Your task to perform on an android device: open app "LinkedIn" Image 0: 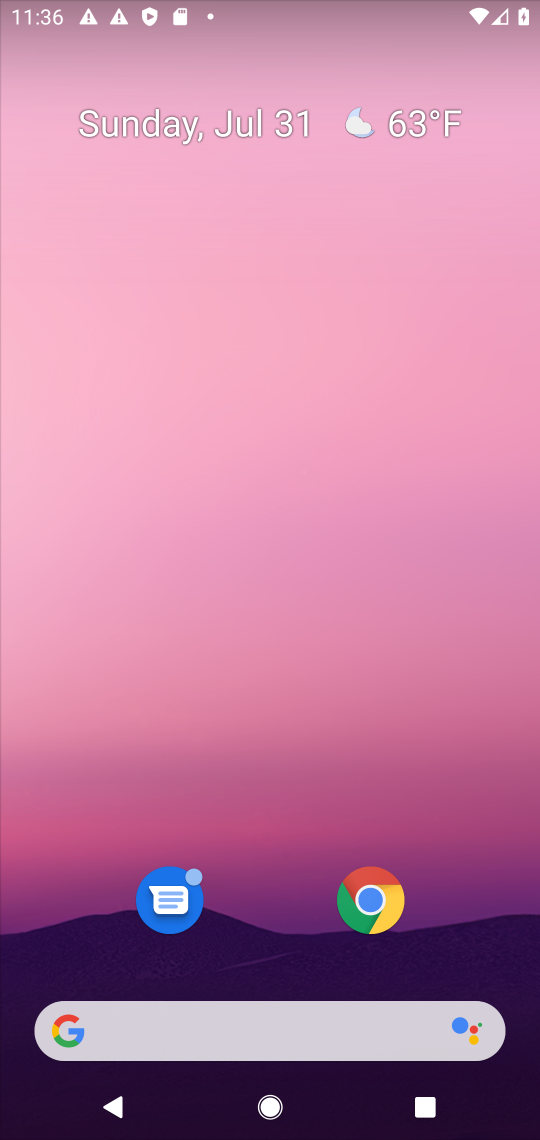
Step 0: drag from (235, 1084) to (69, 21)
Your task to perform on an android device: open app "LinkedIn" Image 1: 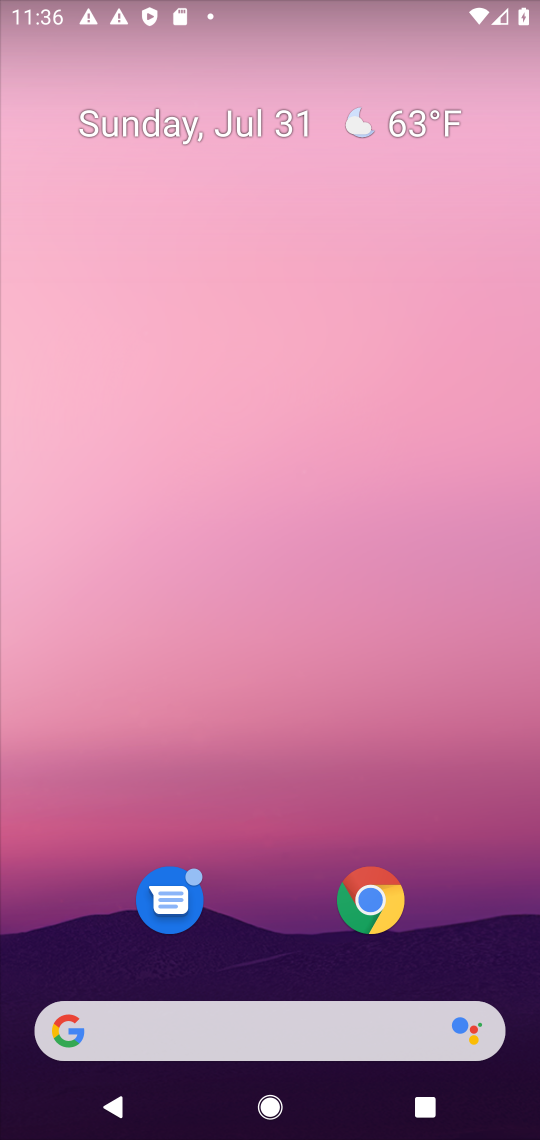
Step 1: drag from (209, 987) to (295, 9)
Your task to perform on an android device: open app "LinkedIn" Image 2: 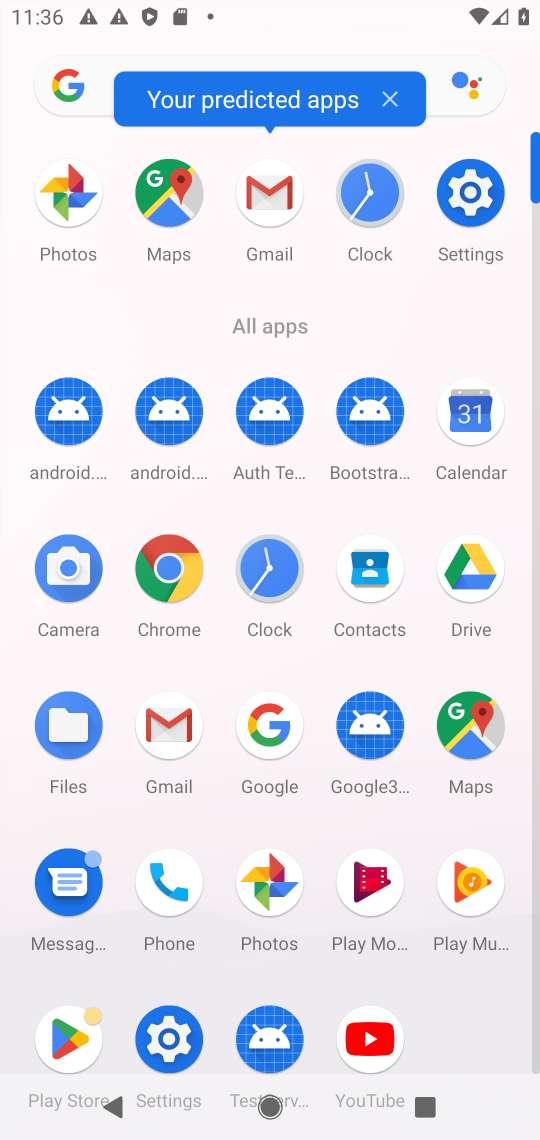
Step 2: click (73, 1041)
Your task to perform on an android device: open app "LinkedIn" Image 3: 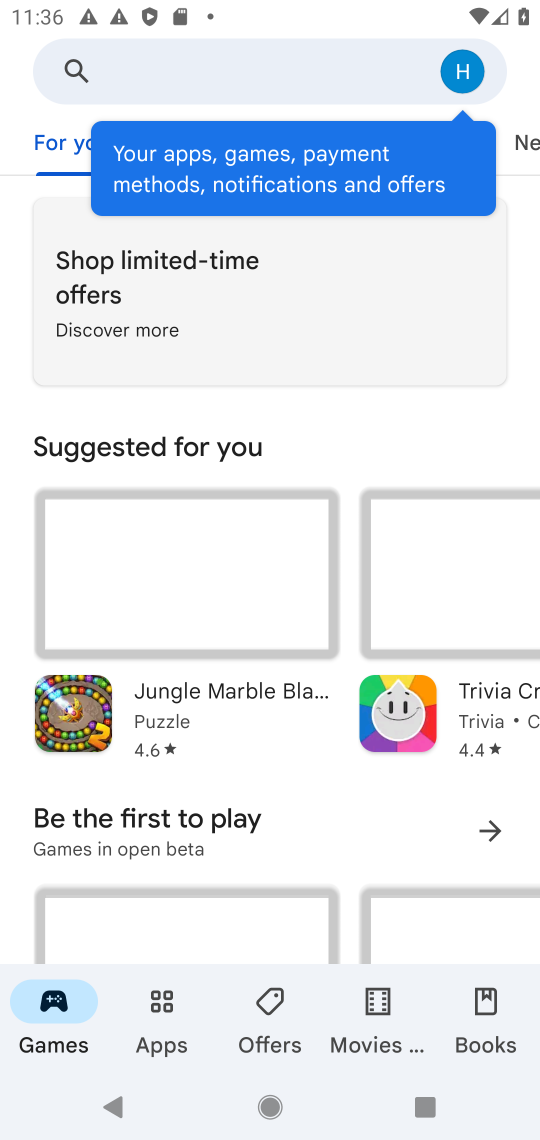
Step 3: click (159, 62)
Your task to perform on an android device: open app "LinkedIn" Image 4: 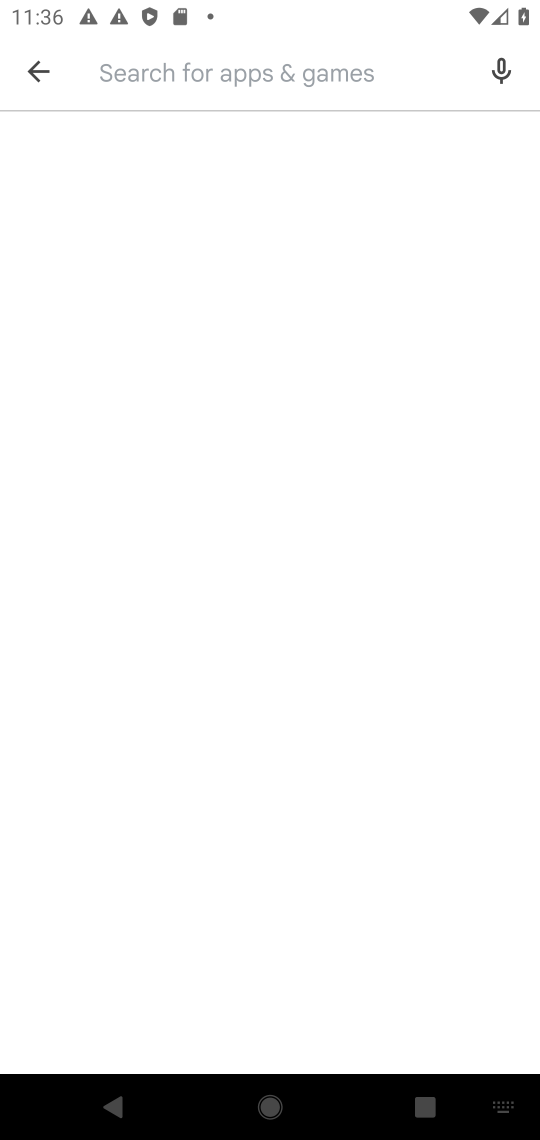
Step 4: type "LinkedIn"
Your task to perform on an android device: open app "LinkedIn" Image 5: 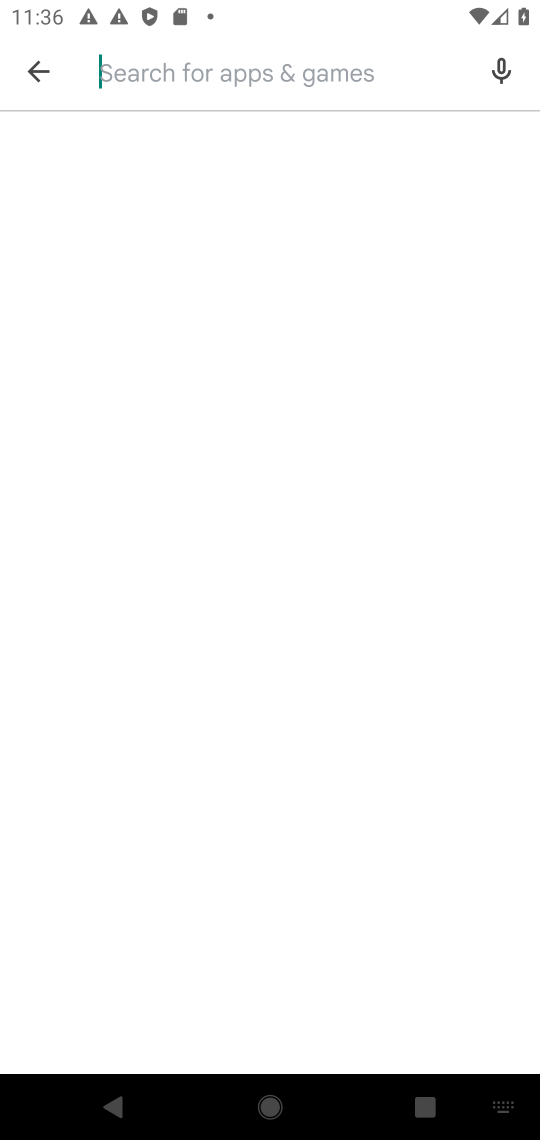
Step 5: click (272, 66)
Your task to perform on an android device: open app "LinkedIn" Image 6: 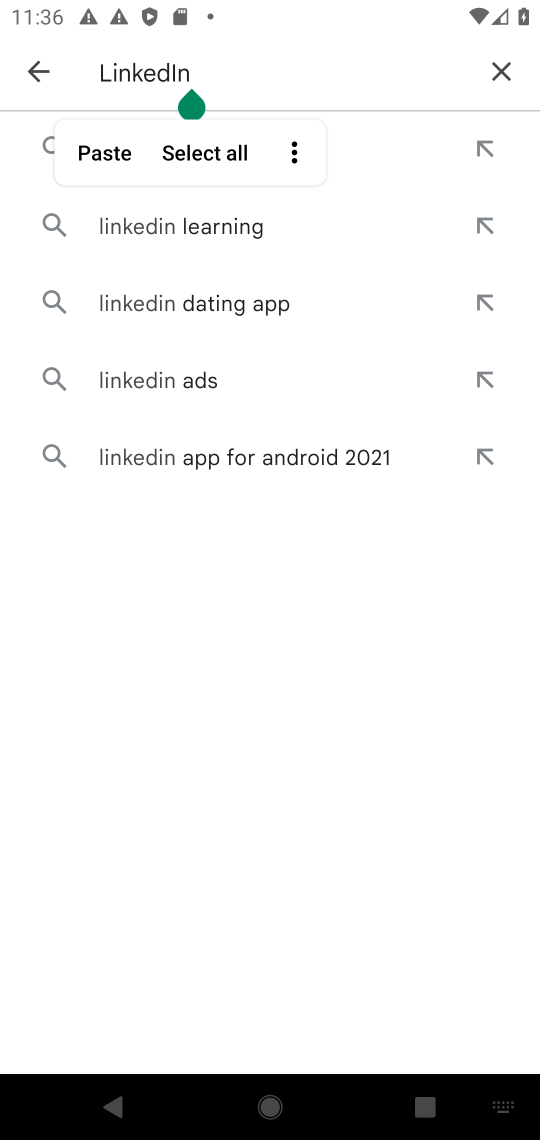
Step 6: click (331, 70)
Your task to perform on an android device: open app "LinkedIn" Image 7: 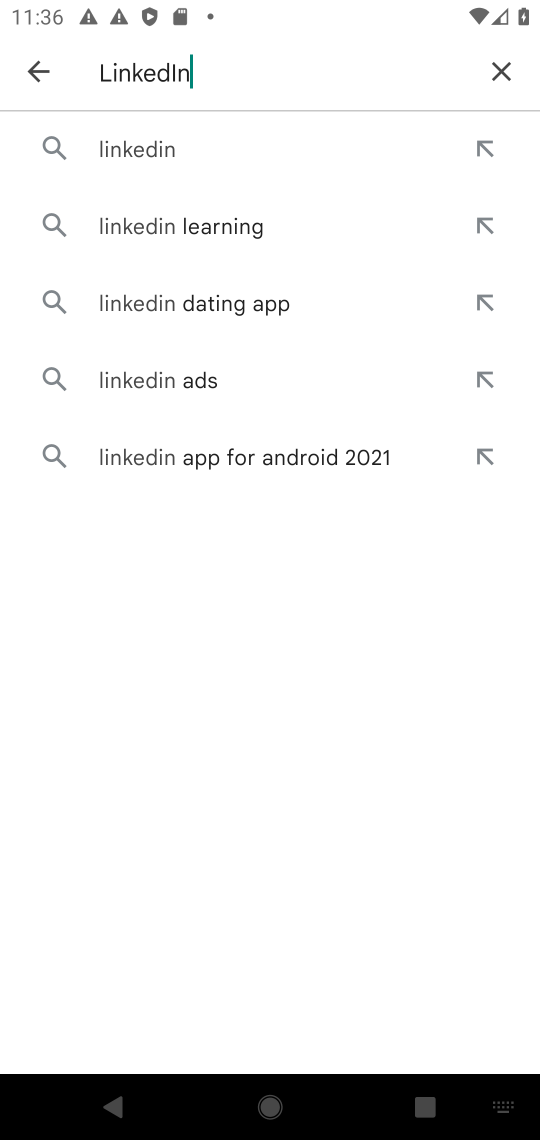
Step 7: click (188, 138)
Your task to perform on an android device: open app "LinkedIn" Image 8: 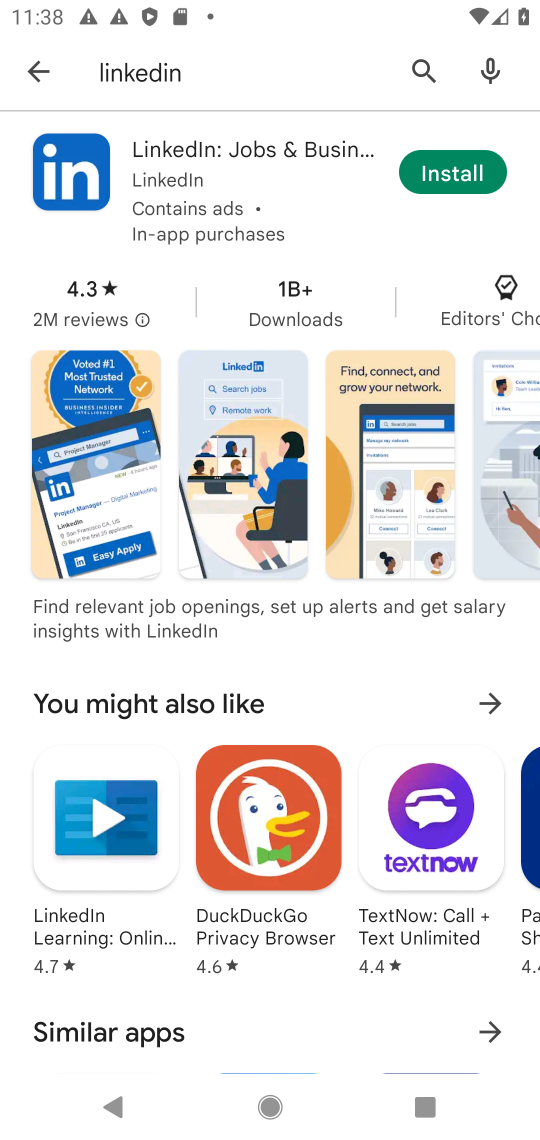
Step 8: task complete